Your task to perform on an android device: Go to Google Image 0: 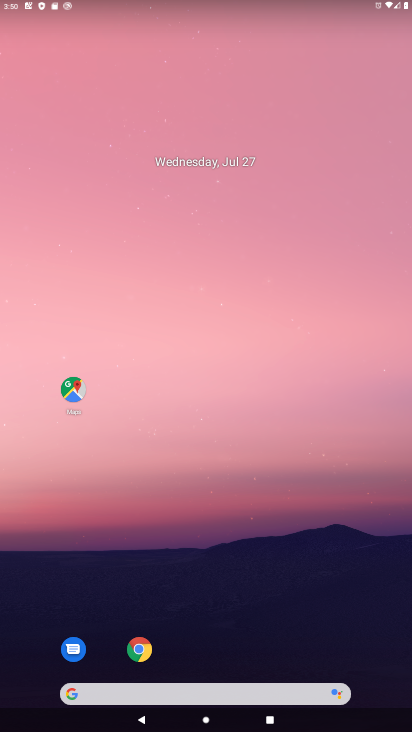
Step 0: click (140, 652)
Your task to perform on an android device: Go to Google Image 1: 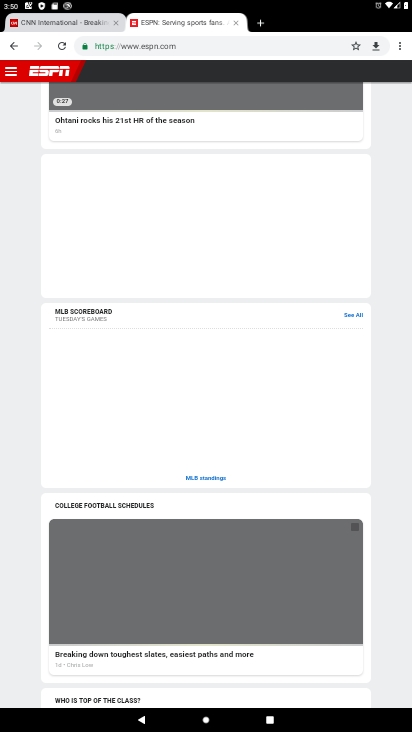
Step 1: task complete